Your task to perform on an android device: Open settings on Google Maps Image 0: 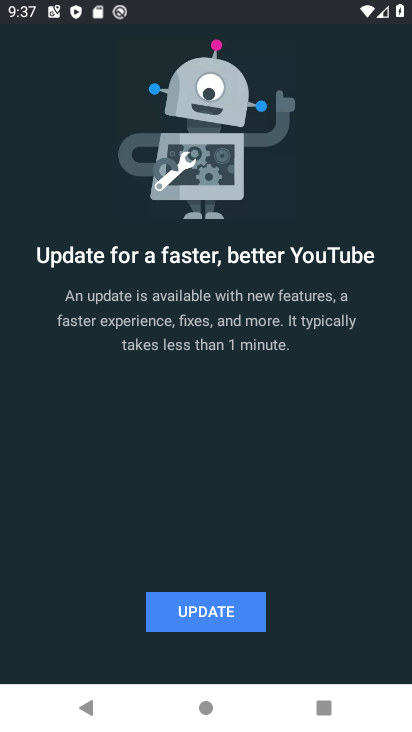
Step 0: press home button
Your task to perform on an android device: Open settings on Google Maps Image 1: 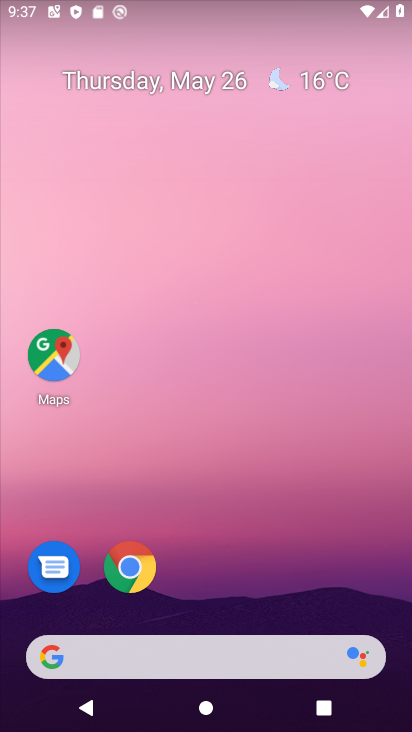
Step 1: click (40, 351)
Your task to perform on an android device: Open settings on Google Maps Image 2: 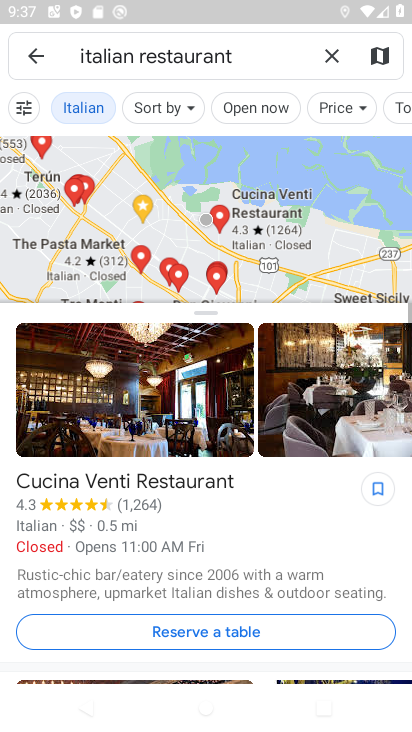
Step 2: click (36, 55)
Your task to perform on an android device: Open settings on Google Maps Image 3: 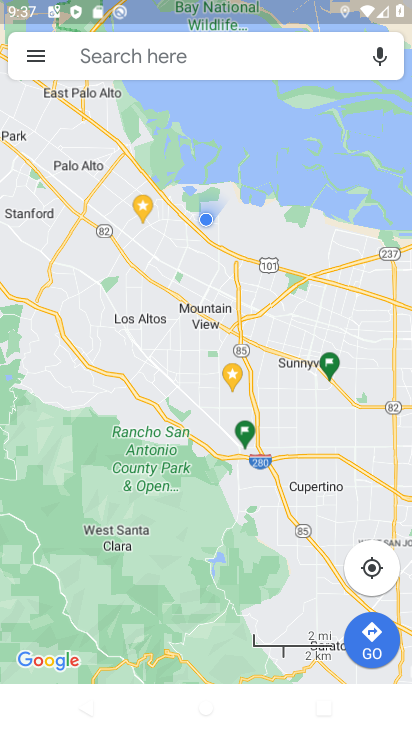
Step 3: click (35, 56)
Your task to perform on an android device: Open settings on Google Maps Image 4: 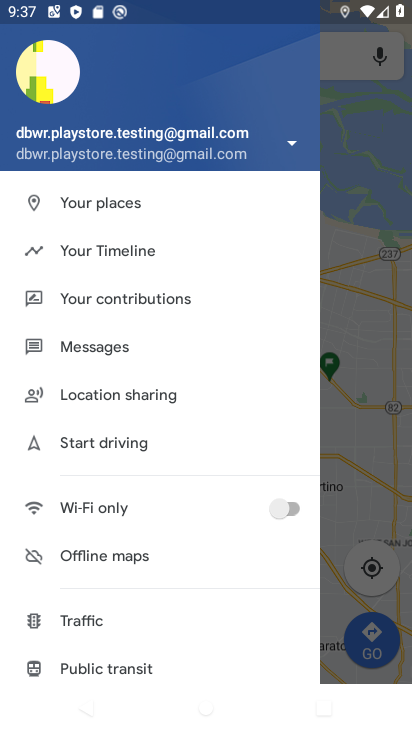
Step 4: drag from (196, 650) to (201, 237)
Your task to perform on an android device: Open settings on Google Maps Image 5: 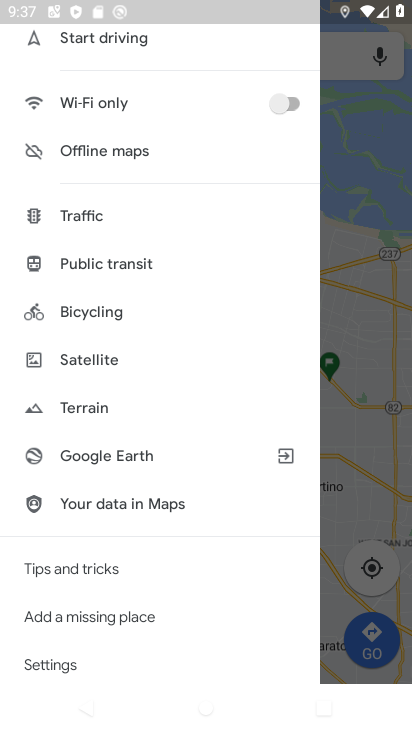
Step 5: click (53, 665)
Your task to perform on an android device: Open settings on Google Maps Image 6: 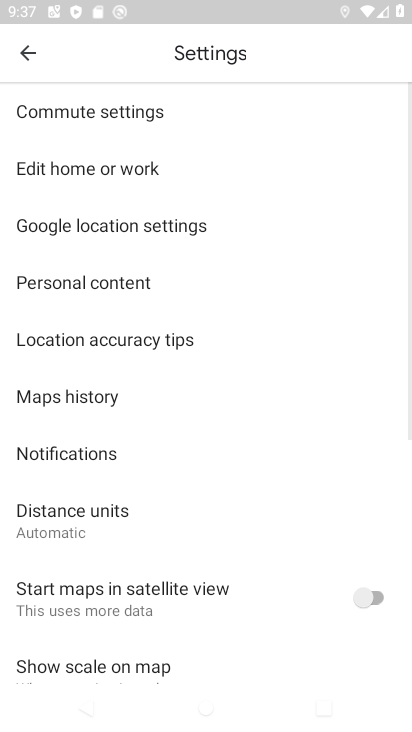
Step 6: task complete